Your task to perform on an android device: turn on location history Image 0: 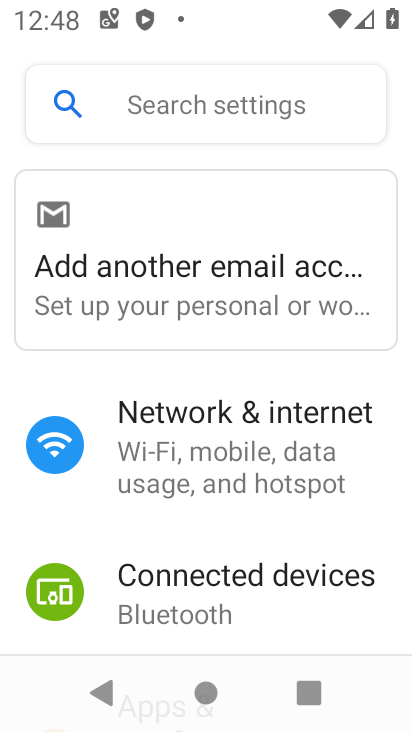
Step 0: press home button
Your task to perform on an android device: turn on location history Image 1: 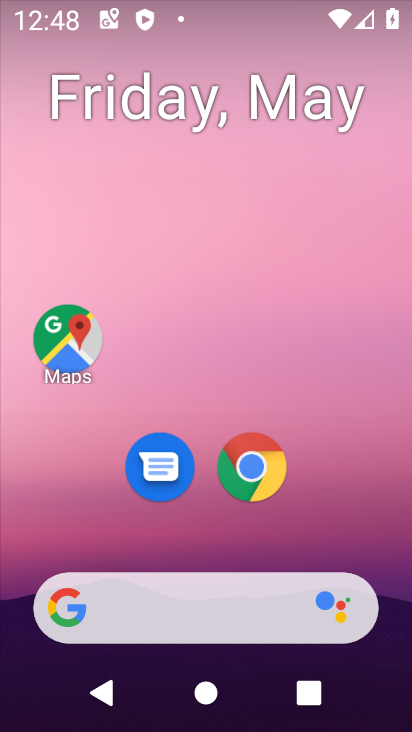
Step 1: click (91, 360)
Your task to perform on an android device: turn on location history Image 2: 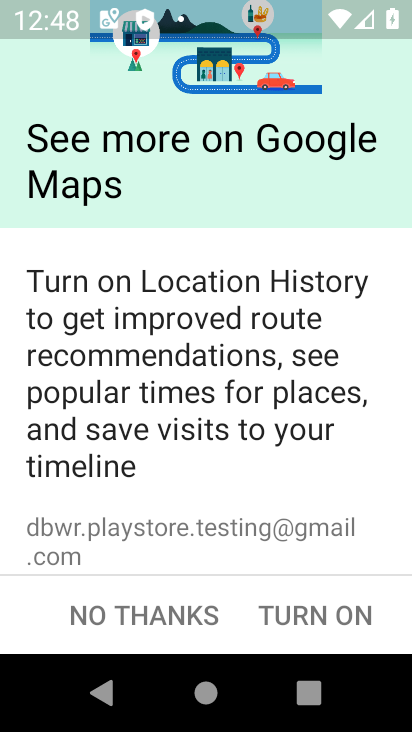
Step 2: click (132, 615)
Your task to perform on an android device: turn on location history Image 3: 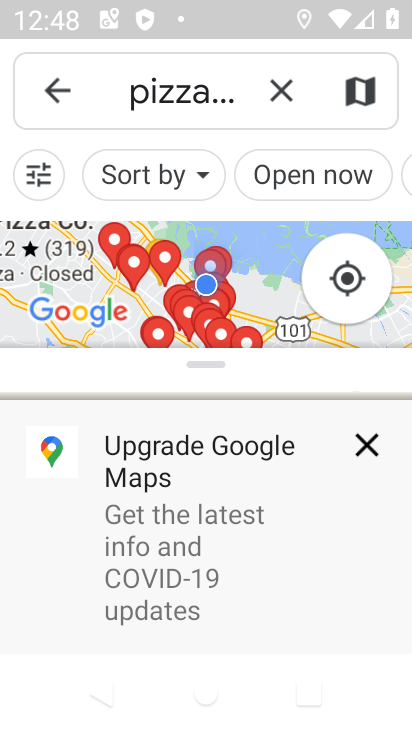
Step 3: click (34, 91)
Your task to perform on an android device: turn on location history Image 4: 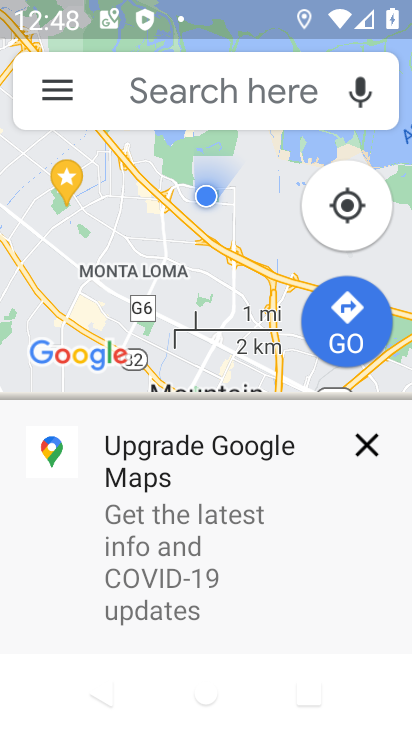
Step 4: click (34, 91)
Your task to perform on an android device: turn on location history Image 5: 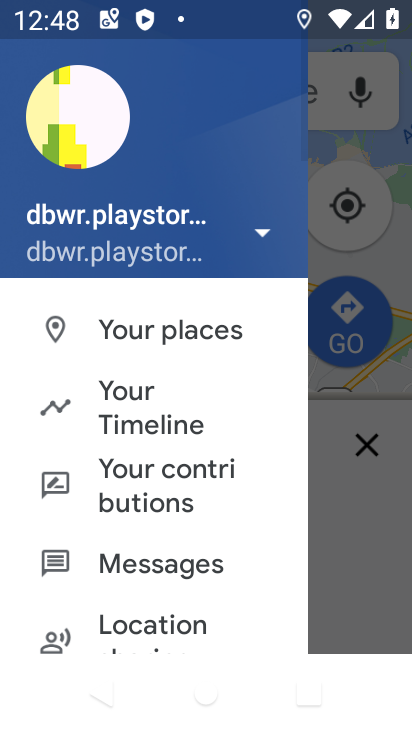
Step 5: click (112, 426)
Your task to perform on an android device: turn on location history Image 6: 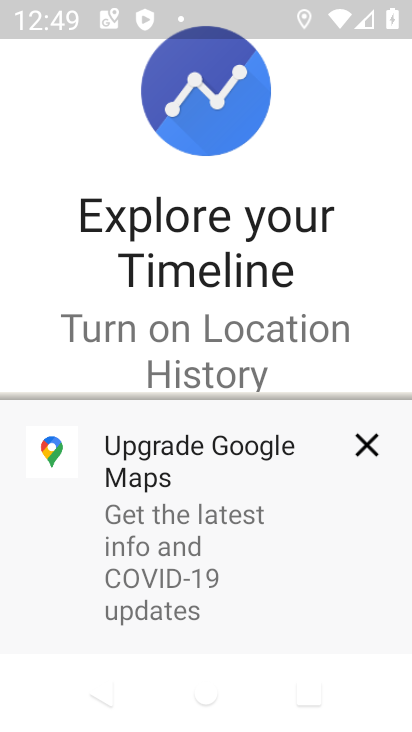
Step 6: click (360, 457)
Your task to perform on an android device: turn on location history Image 7: 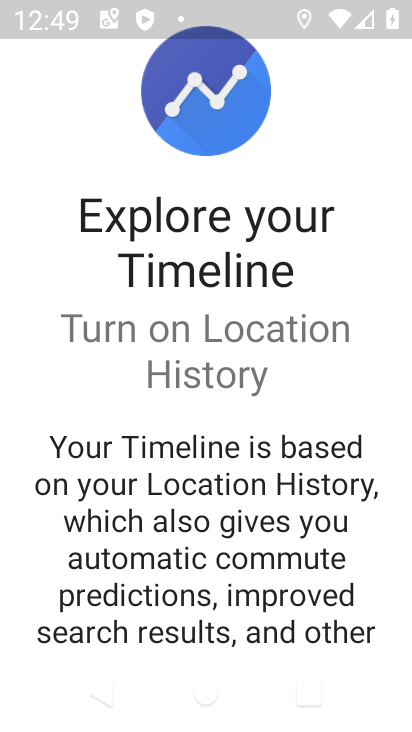
Step 7: drag from (325, 544) to (275, 165)
Your task to perform on an android device: turn on location history Image 8: 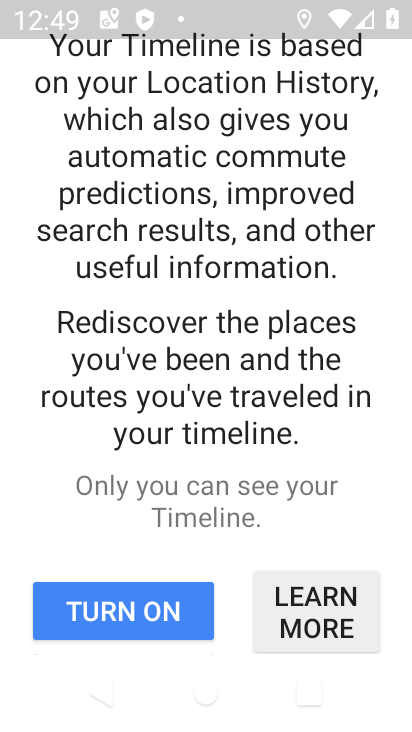
Step 8: click (102, 598)
Your task to perform on an android device: turn on location history Image 9: 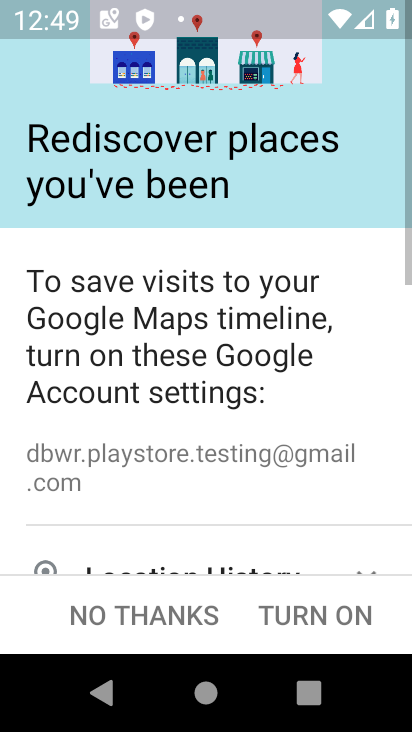
Step 9: drag from (260, 519) to (119, 6)
Your task to perform on an android device: turn on location history Image 10: 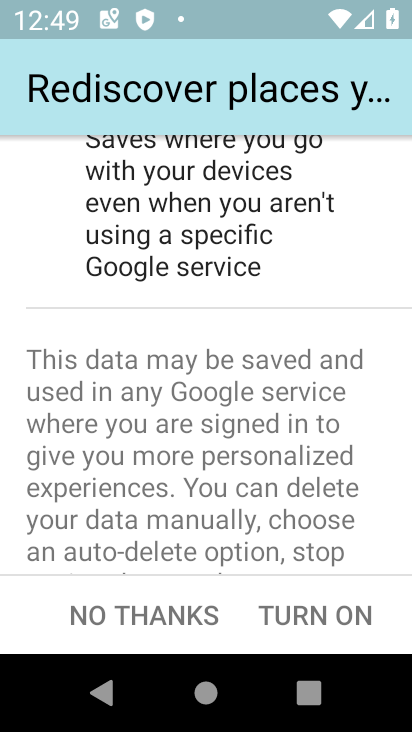
Step 10: drag from (340, 535) to (258, 238)
Your task to perform on an android device: turn on location history Image 11: 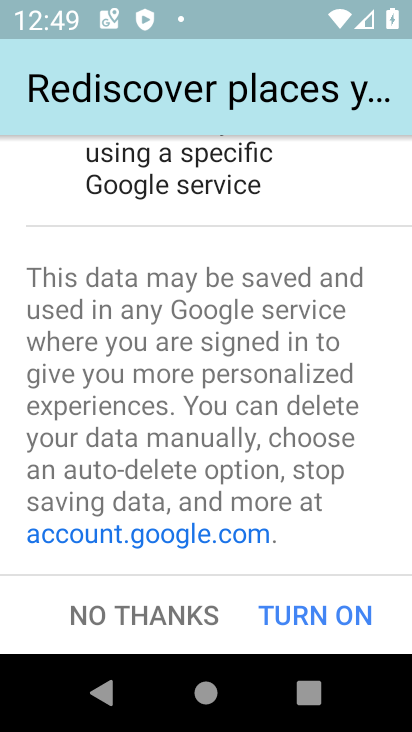
Step 11: click (293, 614)
Your task to perform on an android device: turn on location history Image 12: 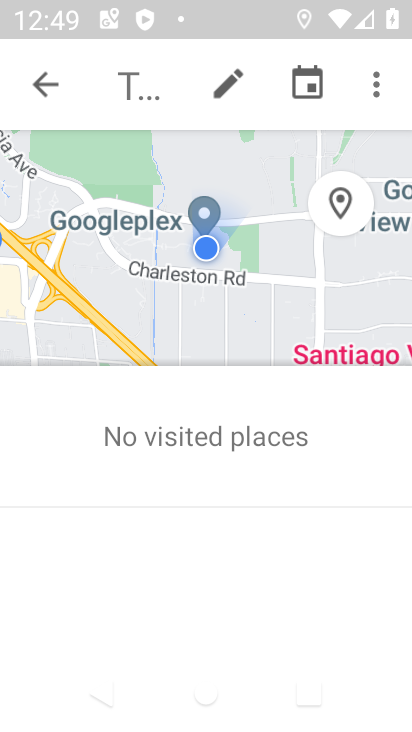
Step 12: task complete